Your task to perform on an android device: Do I have any events this weekend? Image 0: 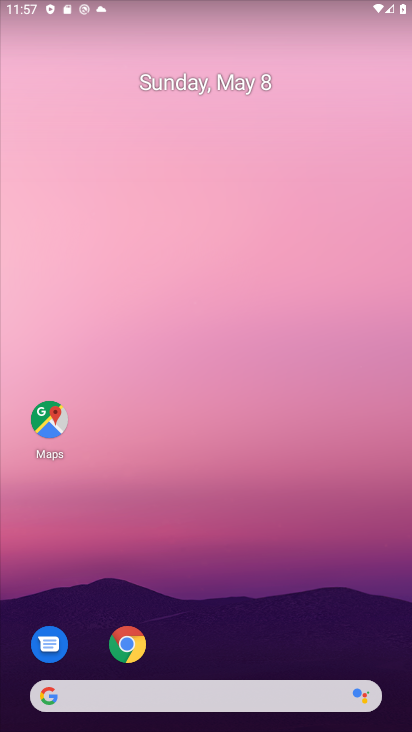
Step 0: drag from (294, 600) to (237, 23)
Your task to perform on an android device: Do I have any events this weekend? Image 1: 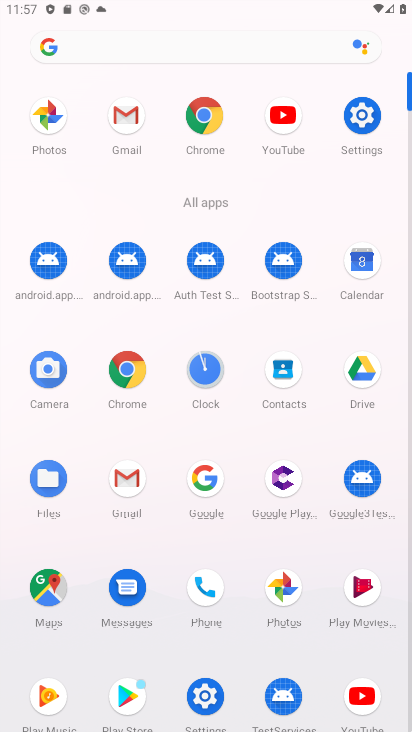
Step 1: click (366, 256)
Your task to perform on an android device: Do I have any events this weekend? Image 2: 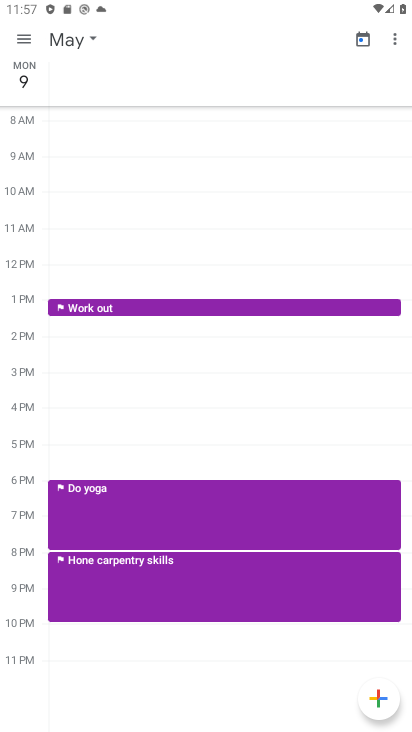
Step 2: click (23, 27)
Your task to perform on an android device: Do I have any events this weekend? Image 3: 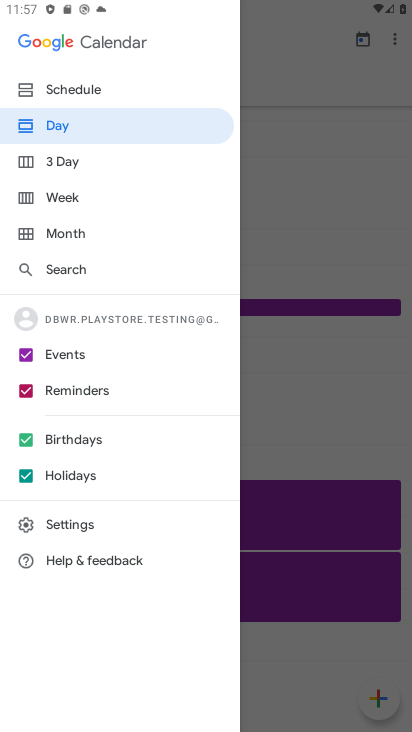
Step 3: click (71, 166)
Your task to perform on an android device: Do I have any events this weekend? Image 4: 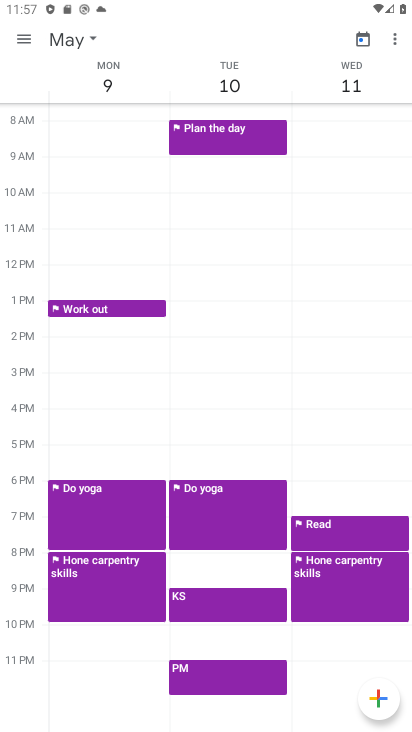
Step 4: click (81, 33)
Your task to perform on an android device: Do I have any events this weekend? Image 5: 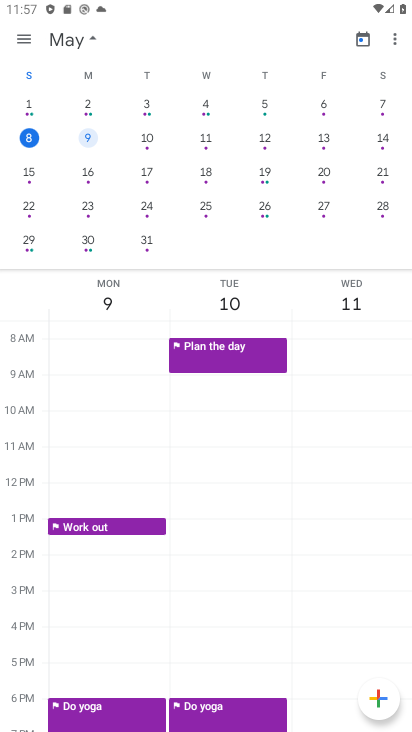
Step 5: click (266, 134)
Your task to perform on an android device: Do I have any events this weekend? Image 6: 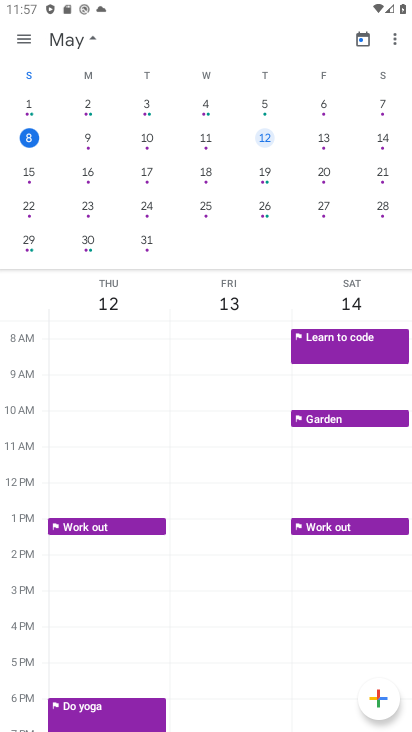
Step 6: click (320, 133)
Your task to perform on an android device: Do I have any events this weekend? Image 7: 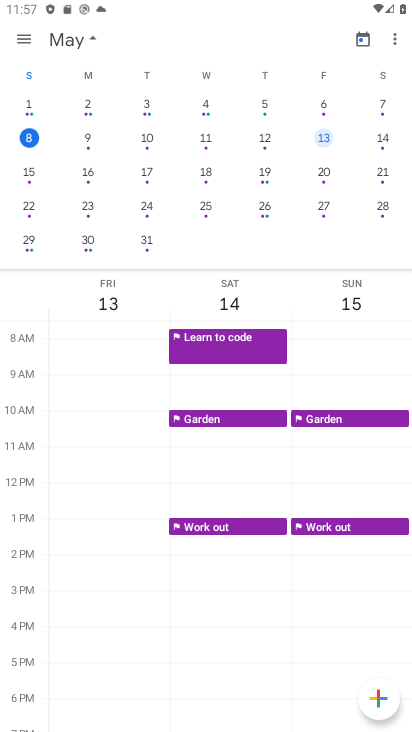
Step 7: task complete